Your task to perform on an android device: Go to notification settings Image 0: 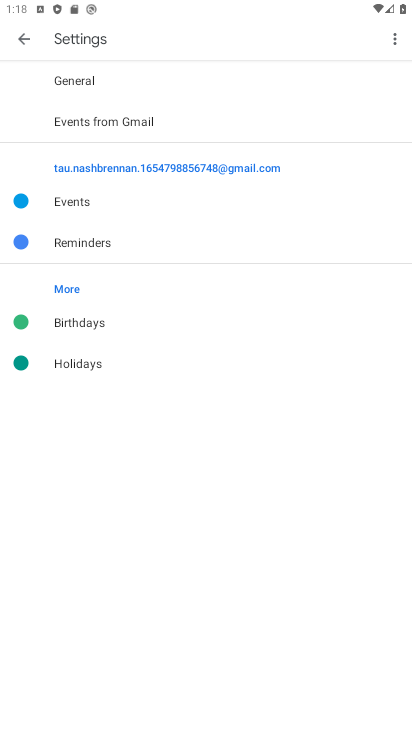
Step 0: press home button
Your task to perform on an android device: Go to notification settings Image 1: 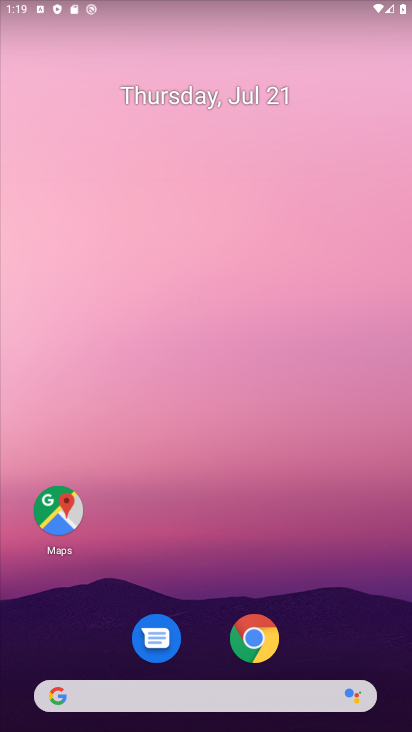
Step 1: drag from (253, 728) to (160, 23)
Your task to perform on an android device: Go to notification settings Image 2: 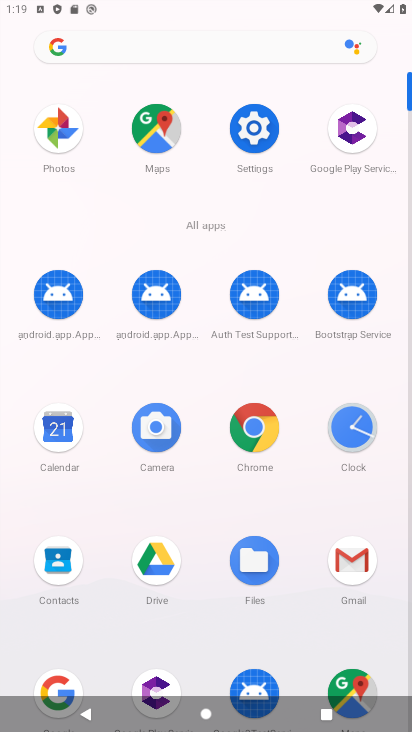
Step 2: click (264, 123)
Your task to perform on an android device: Go to notification settings Image 3: 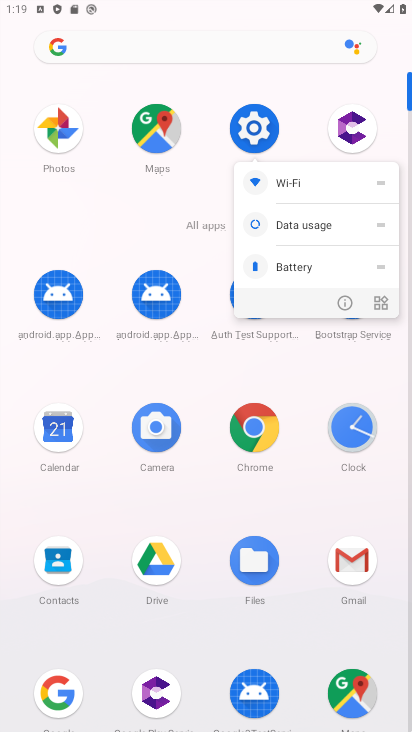
Step 3: click (268, 122)
Your task to perform on an android device: Go to notification settings Image 4: 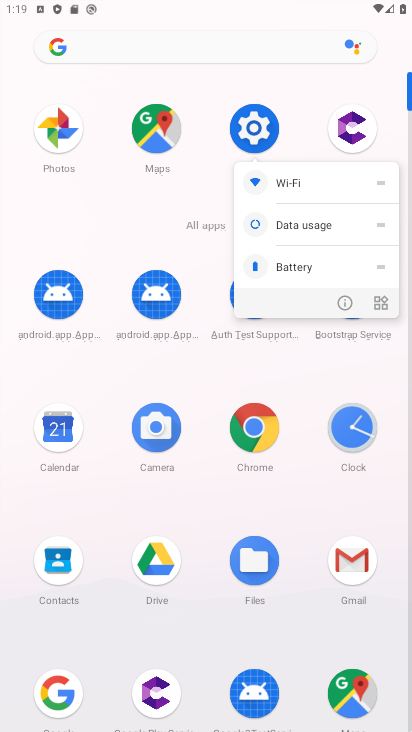
Step 4: click (268, 122)
Your task to perform on an android device: Go to notification settings Image 5: 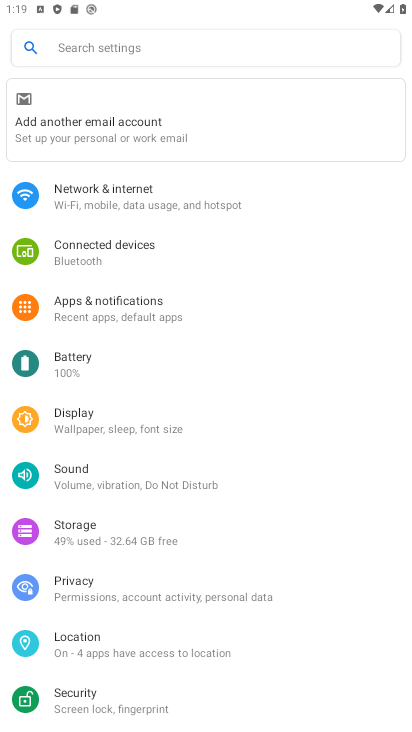
Step 5: click (169, 314)
Your task to perform on an android device: Go to notification settings Image 6: 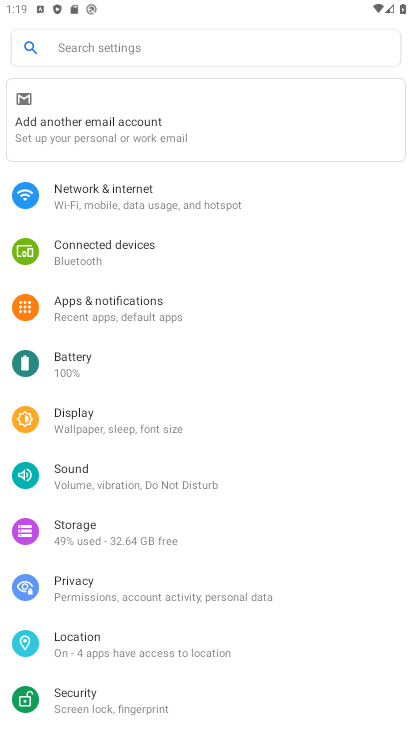
Step 6: click (169, 314)
Your task to perform on an android device: Go to notification settings Image 7: 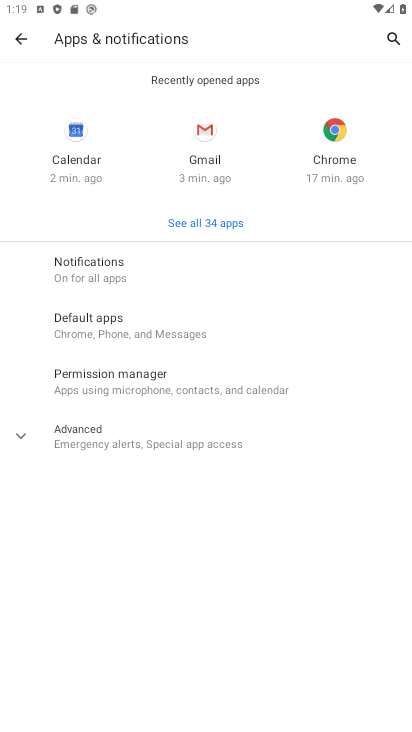
Step 7: task complete